Your task to perform on an android device: Check the news Image 0: 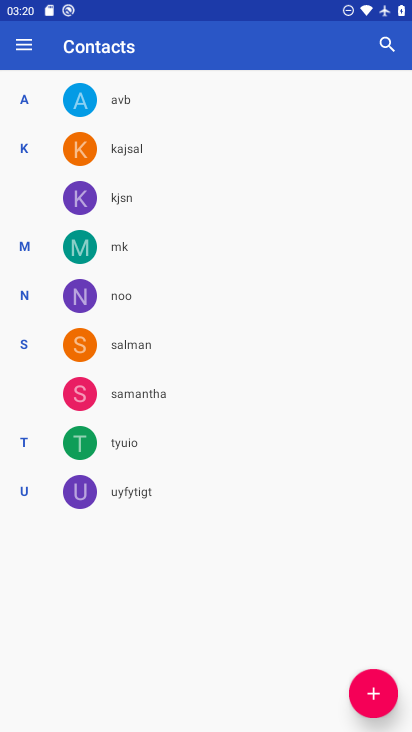
Step 0: press home button
Your task to perform on an android device: Check the news Image 1: 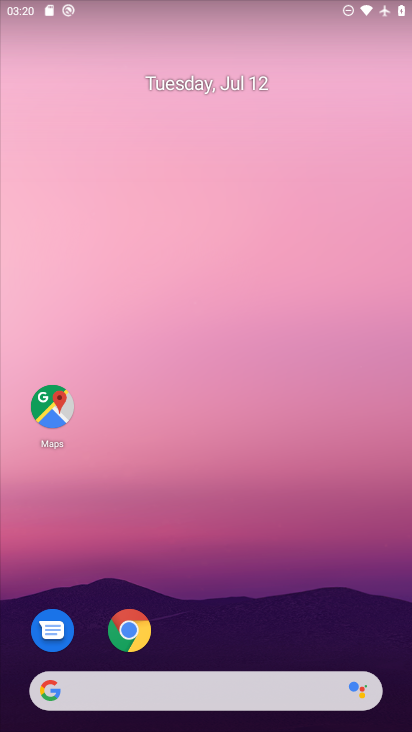
Step 1: task complete